Your task to perform on an android device: Search for seafood restaurants on Google Maps Image 0: 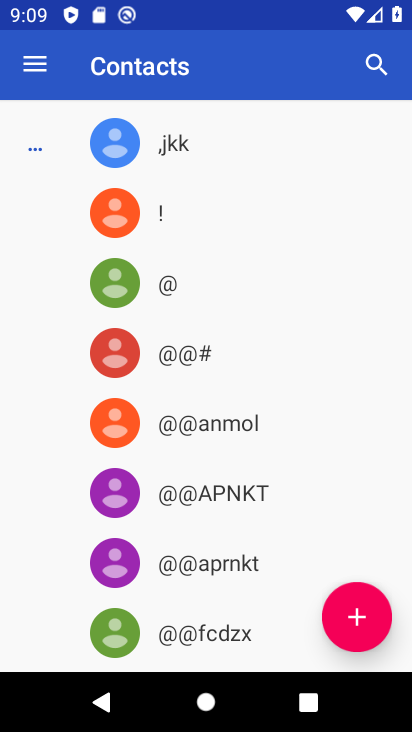
Step 0: press back button
Your task to perform on an android device: Search for seafood restaurants on Google Maps Image 1: 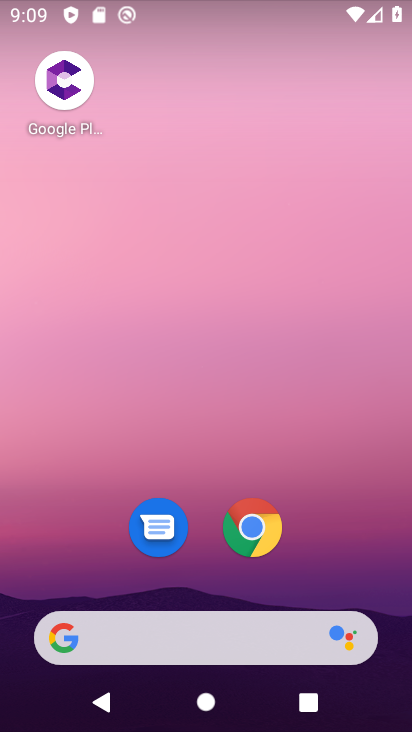
Step 1: drag from (357, 574) to (192, 147)
Your task to perform on an android device: Search for seafood restaurants on Google Maps Image 2: 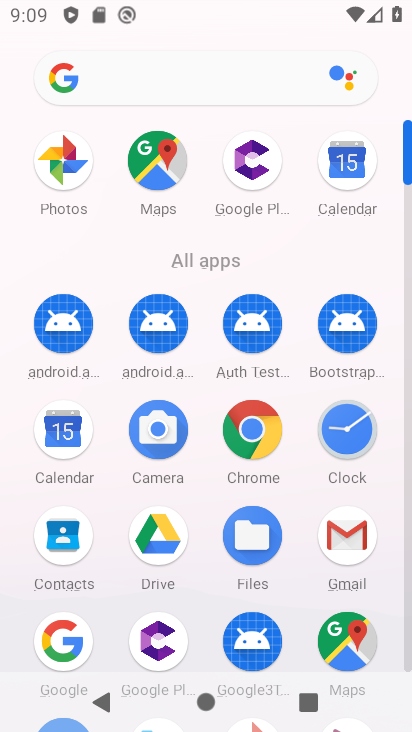
Step 2: click (192, 147)
Your task to perform on an android device: Search for seafood restaurants on Google Maps Image 3: 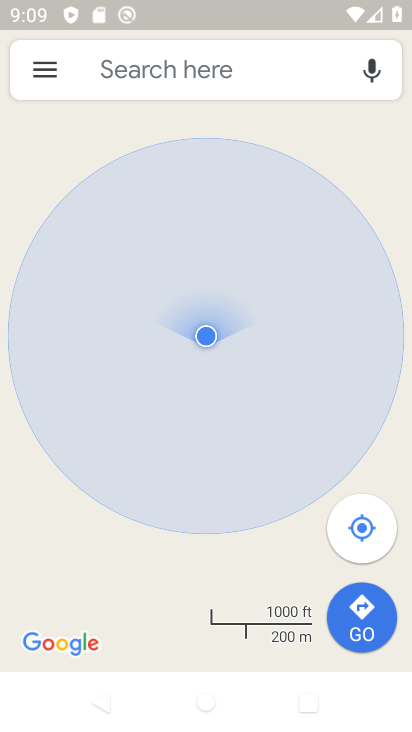
Step 3: click (176, 81)
Your task to perform on an android device: Search for seafood restaurants on Google Maps Image 4: 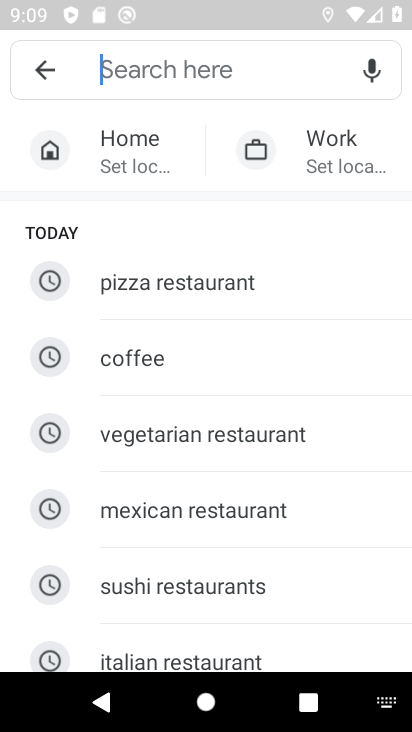
Step 4: type "seafood restaurants"
Your task to perform on an android device: Search for seafood restaurants on Google Maps Image 5: 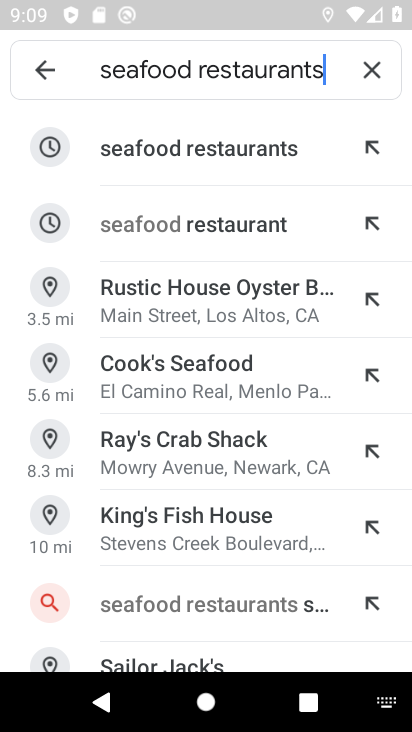
Step 5: click (230, 148)
Your task to perform on an android device: Search for seafood restaurants on Google Maps Image 6: 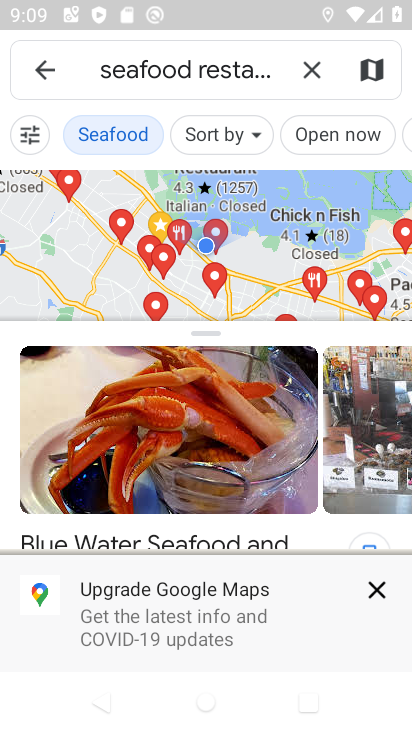
Step 6: task complete